Your task to perform on an android device: Open the calendar app, open the side menu, and click the "Day" option Image 0: 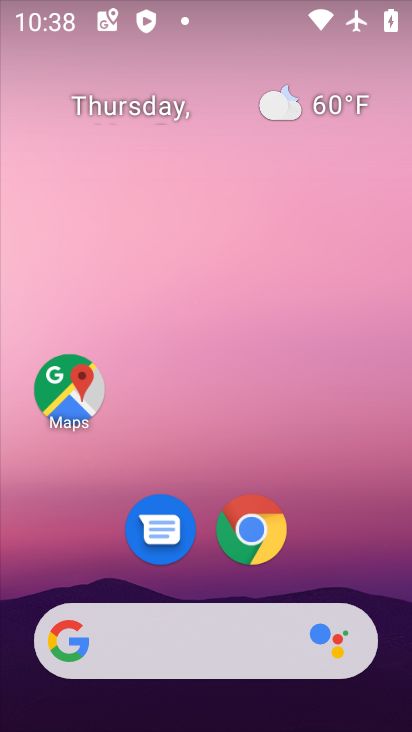
Step 0: drag from (330, 556) to (188, 71)
Your task to perform on an android device: Open the calendar app, open the side menu, and click the "Day" option Image 1: 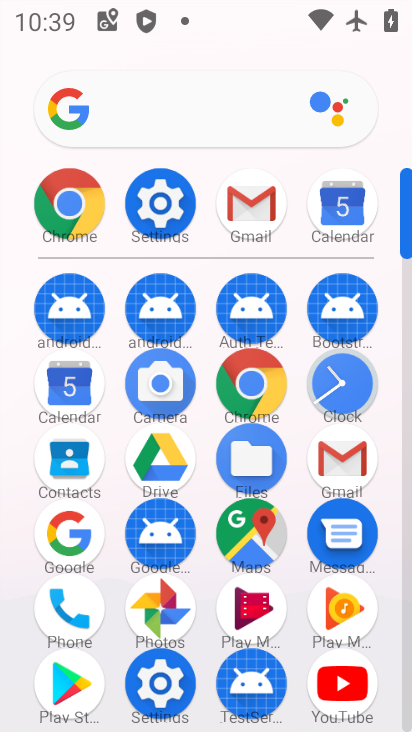
Step 1: click (68, 377)
Your task to perform on an android device: Open the calendar app, open the side menu, and click the "Day" option Image 2: 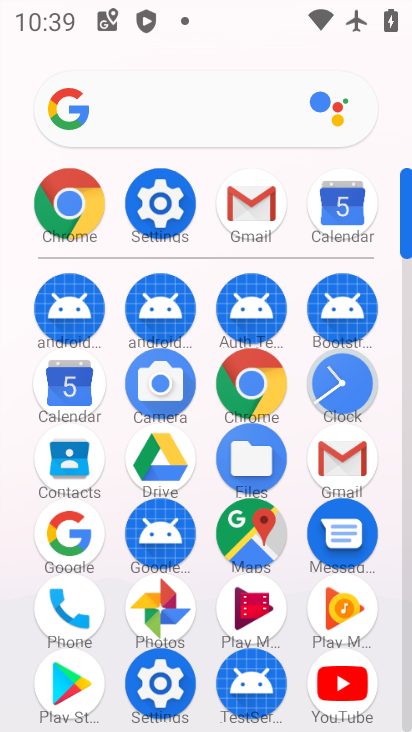
Step 2: click (56, 374)
Your task to perform on an android device: Open the calendar app, open the side menu, and click the "Day" option Image 3: 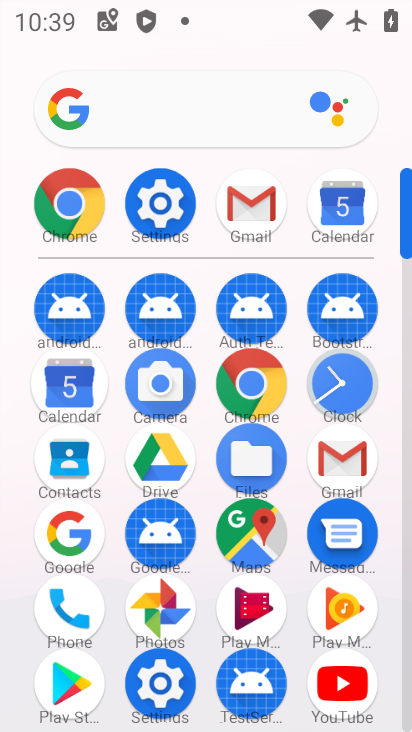
Step 3: click (56, 374)
Your task to perform on an android device: Open the calendar app, open the side menu, and click the "Day" option Image 4: 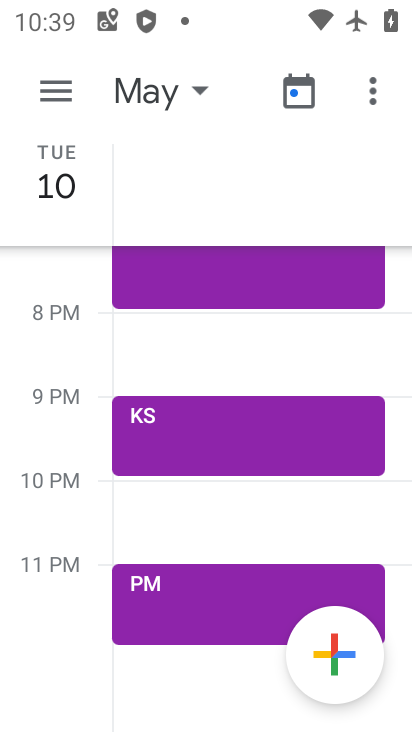
Step 4: click (68, 94)
Your task to perform on an android device: Open the calendar app, open the side menu, and click the "Day" option Image 5: 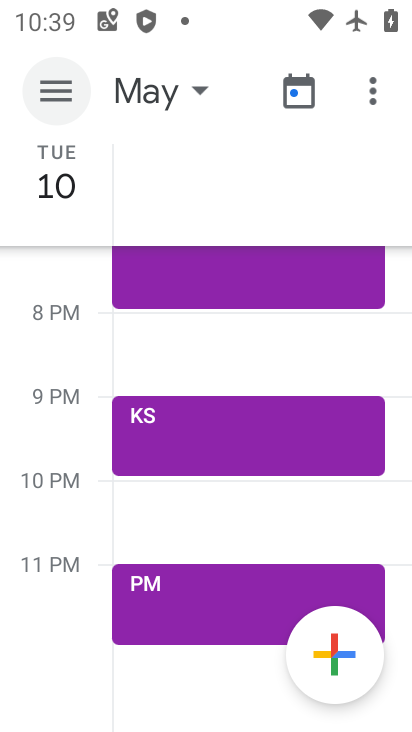
Step 5: click (68, 94)
Your task to perform on an android device: Open the calendar app, open the side menu, and click the "Day" option Image 6: 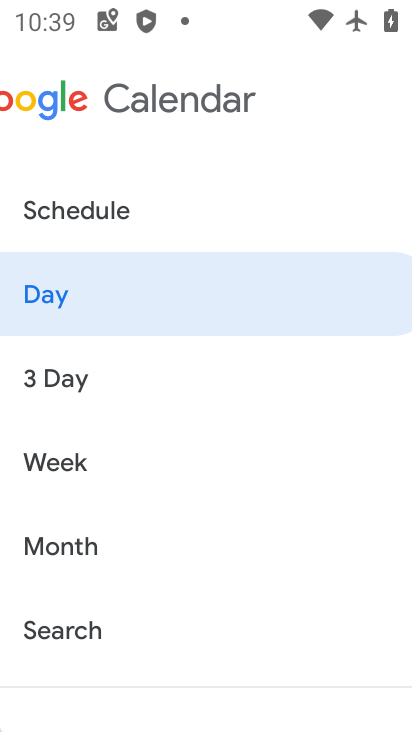
Step 6: click (68, 94)
Your task to perform on an android device: Open the calendar app, open the side menu, and click the "Day" option Image 7: 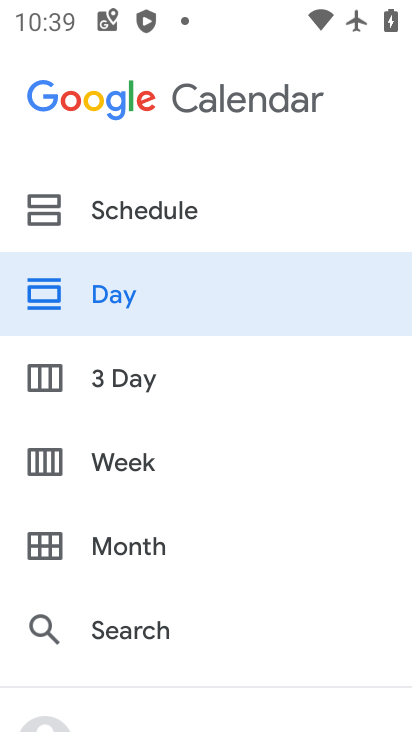
Step 7: click (68, 94)
Your task to perform on an android device: Open the calendar app, open the side menu, and click the "Day" option Image 8: 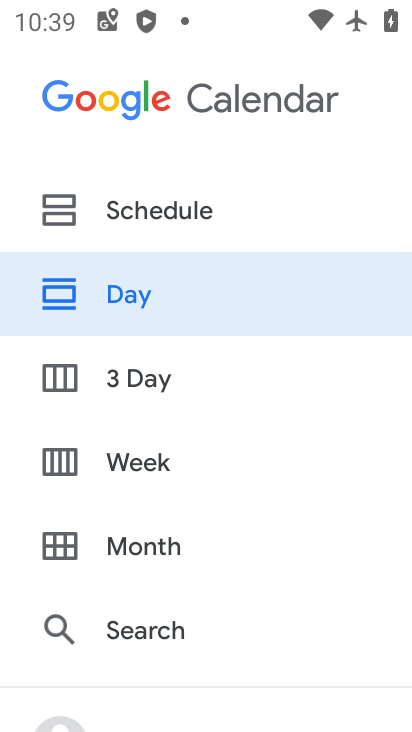
Step 8: click (138, 297)
Your task to perform on an android device: Open the calendar app, open the side menu, and click the "Day" option Image 9: 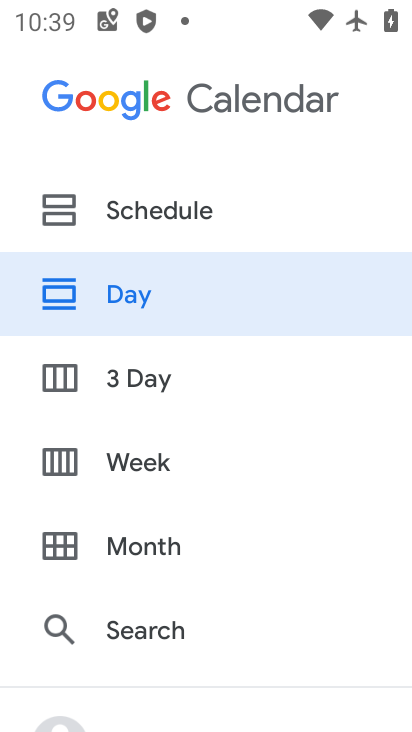
Step 9: click (138, 298)
Your task to perform on an android device: Open the calendar app, open the side menu, and click the "Day" option Image 10: 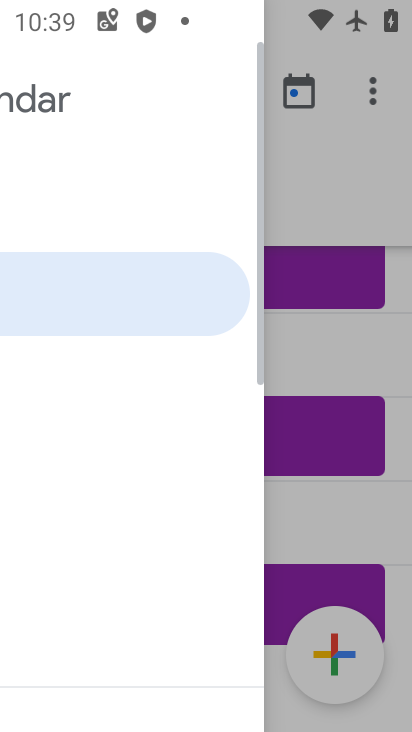
Step 10: click (140, 297)
Your task to perform on an android device: Open the calendar app, open the side menu, and click the "Day" option Image 11: 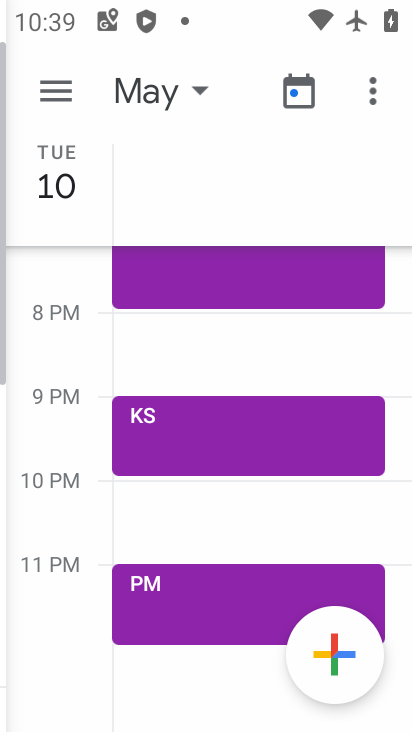
Step 11: click (139, 295)
Your task to perform on an android device: Open the calendar app, open the side menu, and click the "Day" option Image 12: 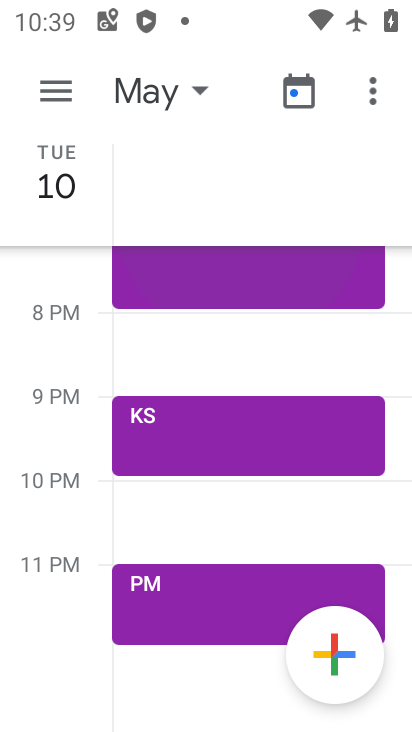
Step 12: click (139, 296)
Your task to perform on an android device: Open the calendar app, open the side menu, and click the "Day" option Image 13: 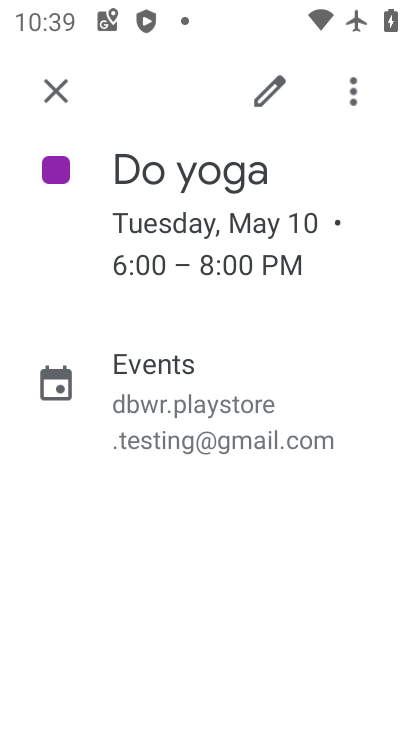
Step 13: click (55, 79)
Your task to perform on an android device: Open the calendar app, open the side menu, and click the "Day" option Image 14: 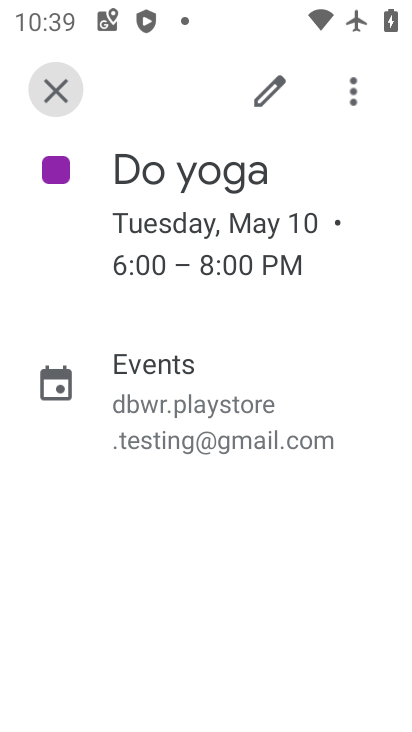
Step 14: click (53, 80)
Your task to perform on an android device: Open the calendar app, open the side menu, and click the "Day" option Image 15: 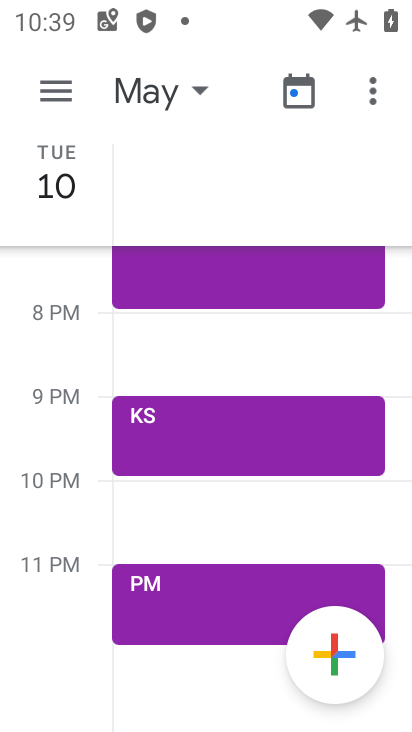
Step 15: click (58, 96)
Your task to perform on an android device: Open the calendar app, open the side menu, and click the "Day" option Image 16: 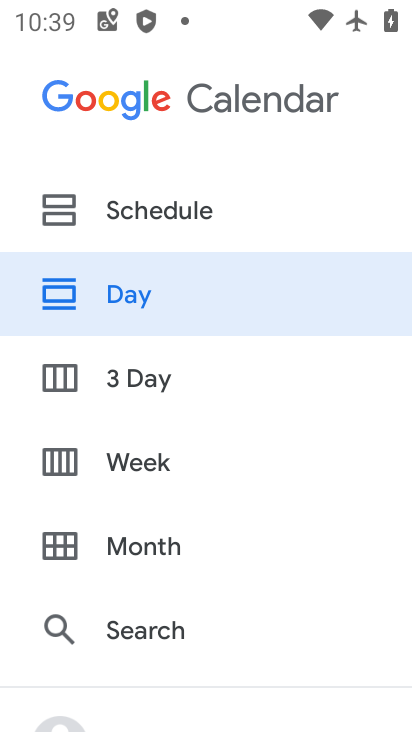
Step 16: click (127, 299)
Your task to perform on an android device: Open the calendar app, open the side menu, and click the "Day" option Image 17: 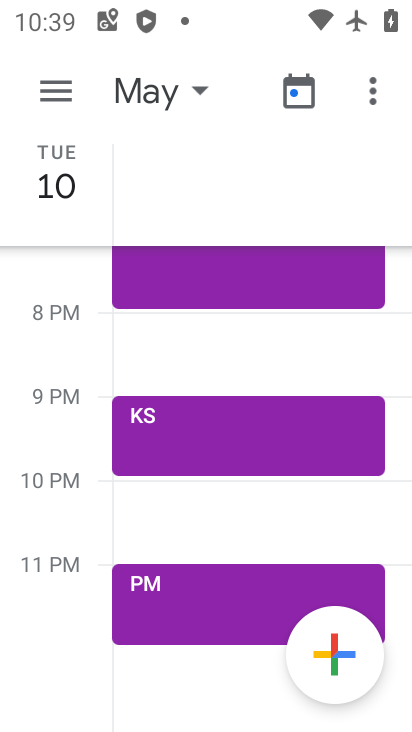
Step 17: task complete